Your task to perform on an android device: empty trash in the gmail app Image 0: 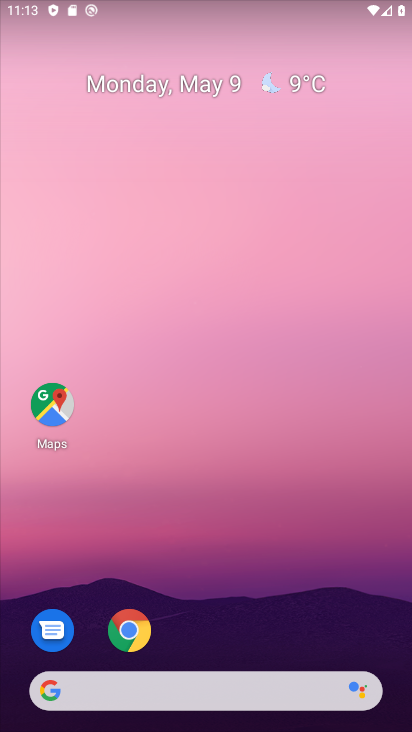
Step 0: drag from (193, 600) to (124, 70)
Your task to perform on an android device: empty trash in the gmail app Image 1: 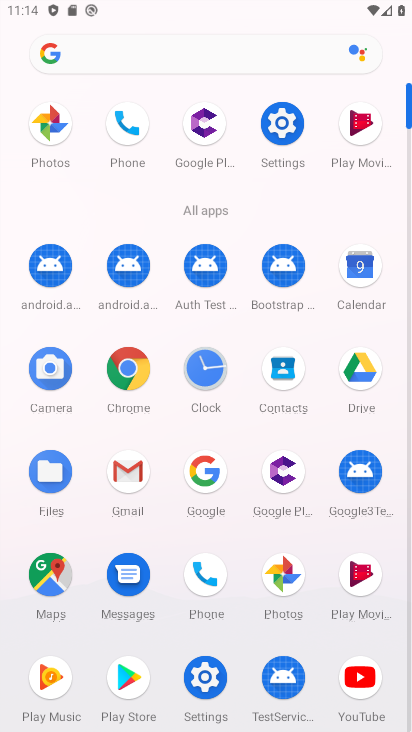
Step 1: click (116, 459)
Your task to perform on an android device: empty trash in the gmail app Image 2: 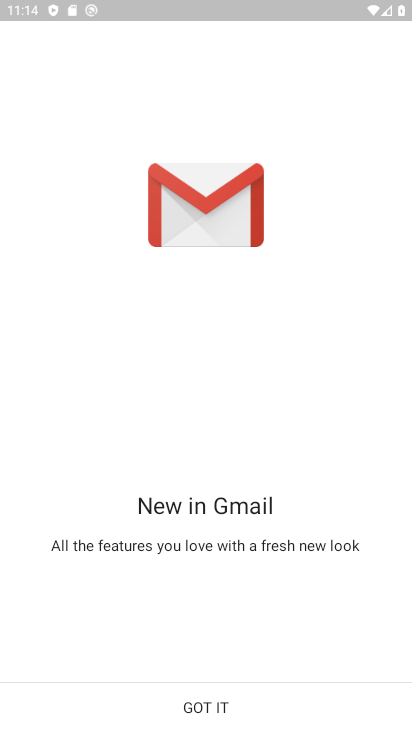
Step 2: click (202, 701)
Your task to perform on an android device: empty trash in the gmail app Image 3: 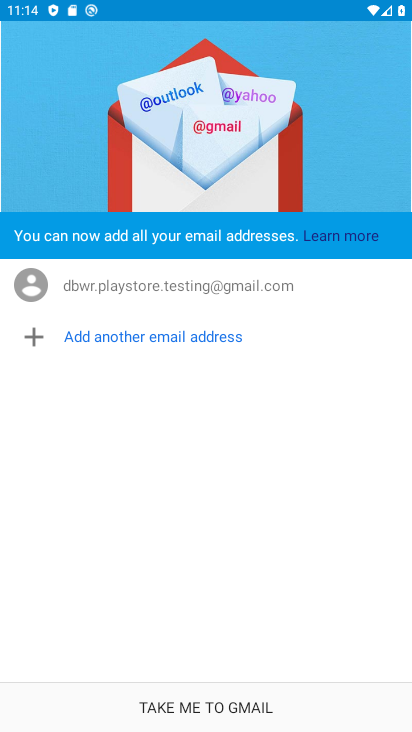
Step 3: click (198, 701)
Your task to perform on an android device: empty trash in the gmail app Image 4: 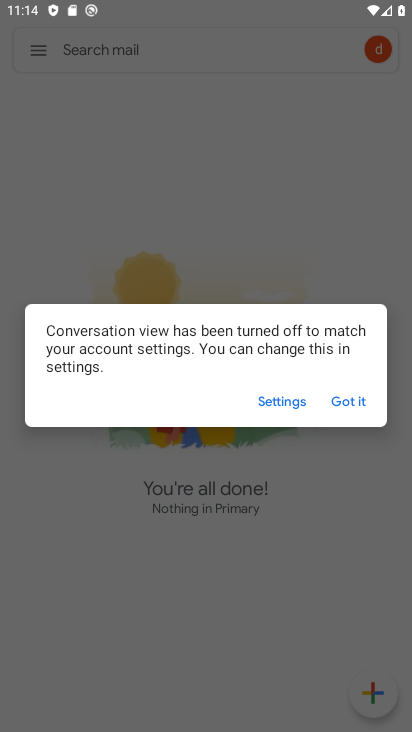
Step 4: click (338, 379)
Your task to perform on an android device: empty trash in the gmail app Image 5: 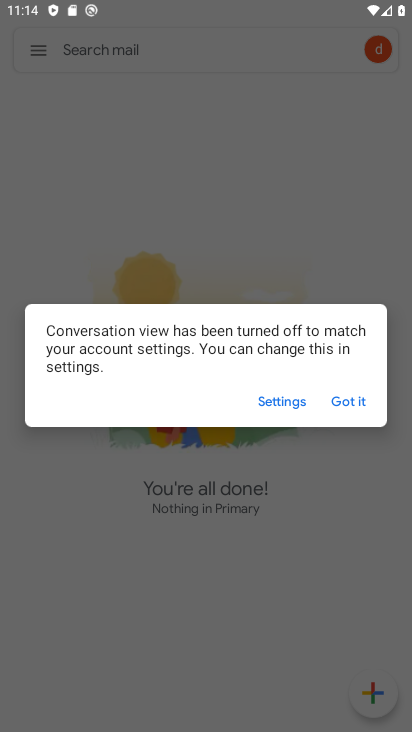
Step 5: click (345, 404)
Your task to perform on an android device: empty trash in the gmail app Image 6: 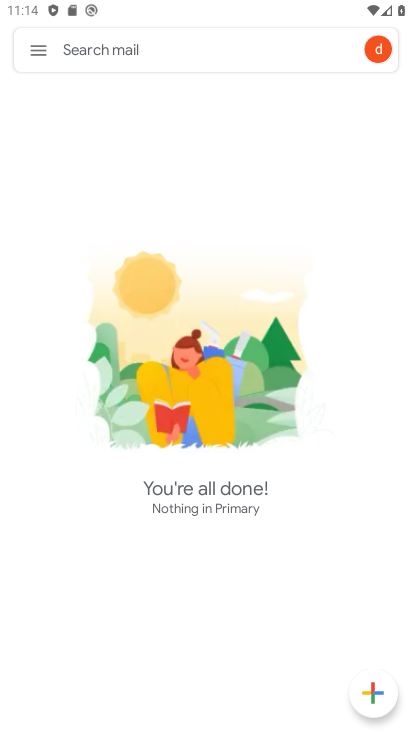
Step 6: click (40, 51)
Your task to perform on an android device: empty trash in the gmail app Image 7: 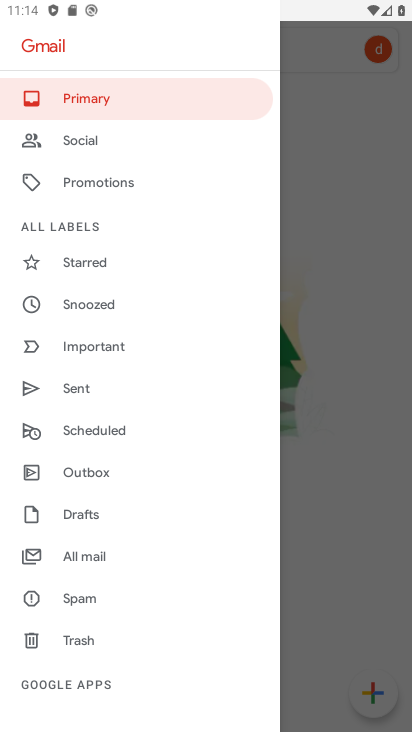
Step 7: click (72, 636)
Your task to perform on an android device: empty trash in the gmail app Image 8: 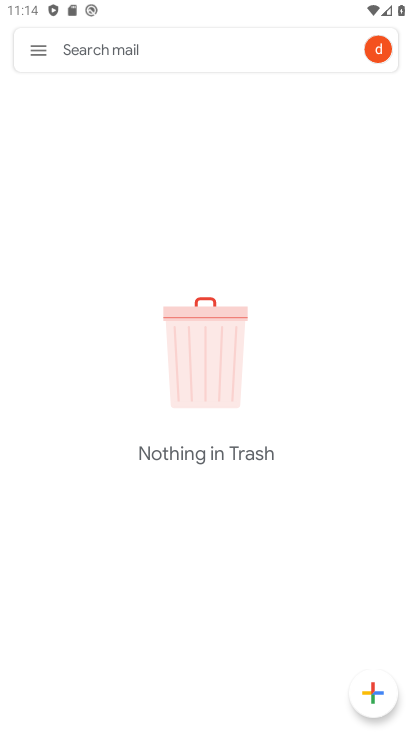
Step 8: task complete